Your task to perform on an android device: change keyboard looks Image 0: 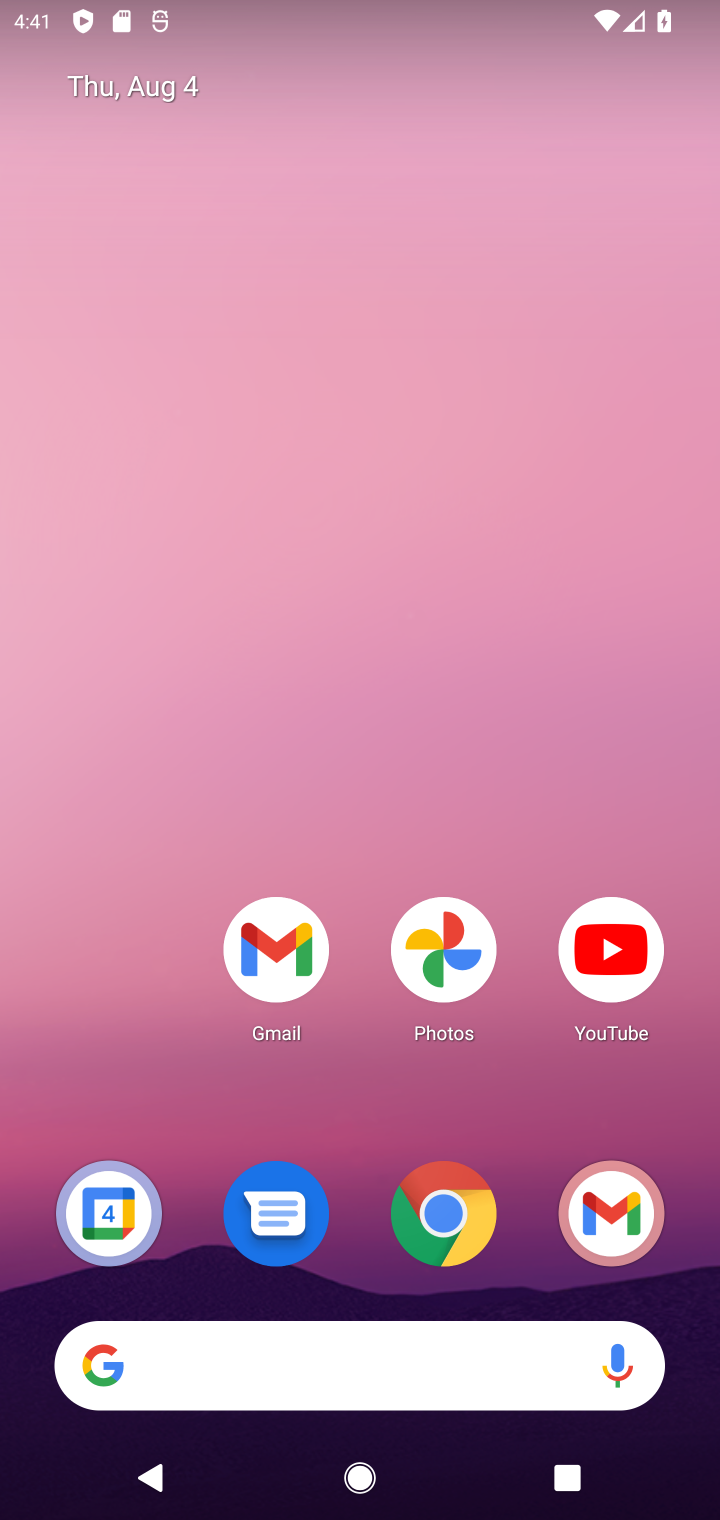
Step 0: press home button
Your task to perform on an android device: change keyboard looks Image 1: 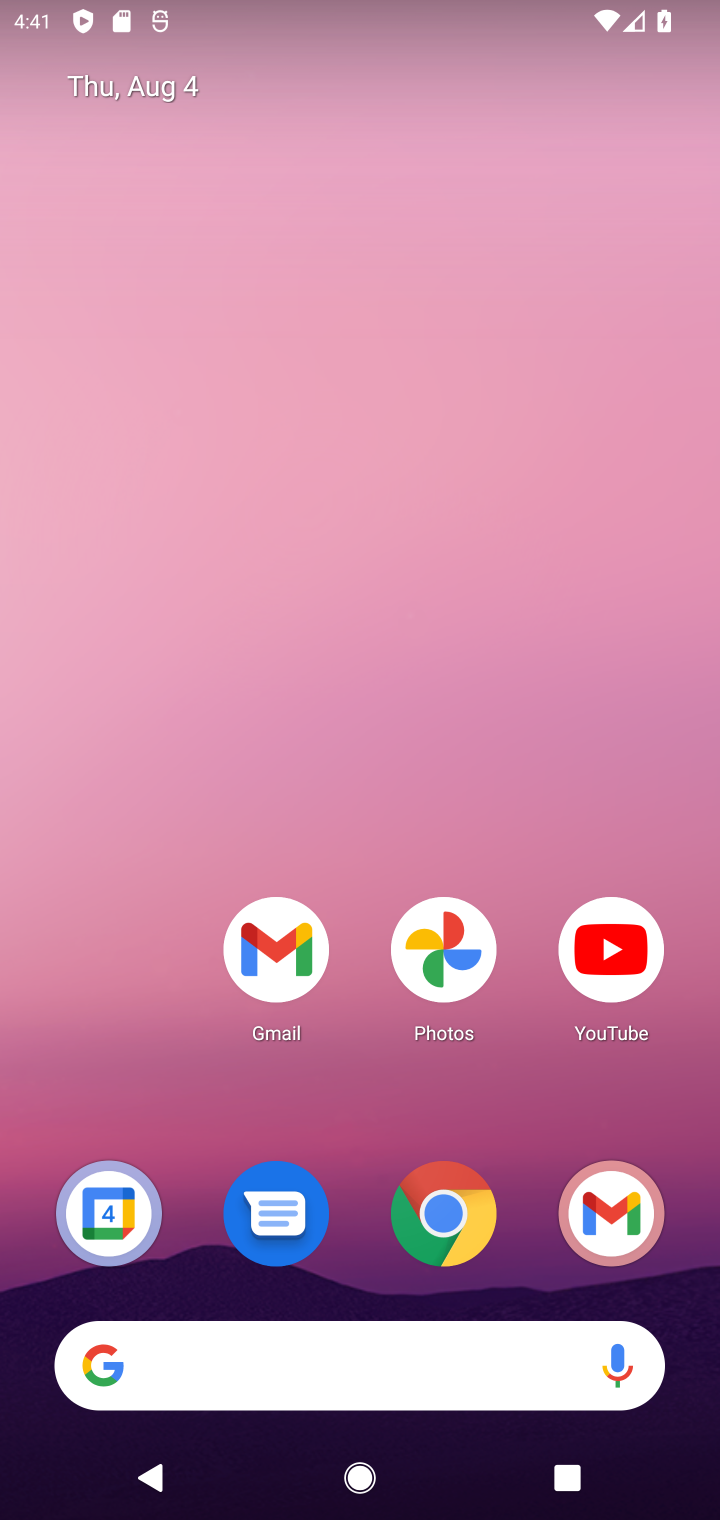
Step 1: drag from (92, 1067) to (174, 326)
Your task to perform on an android device: change keyboard looks Image 2: 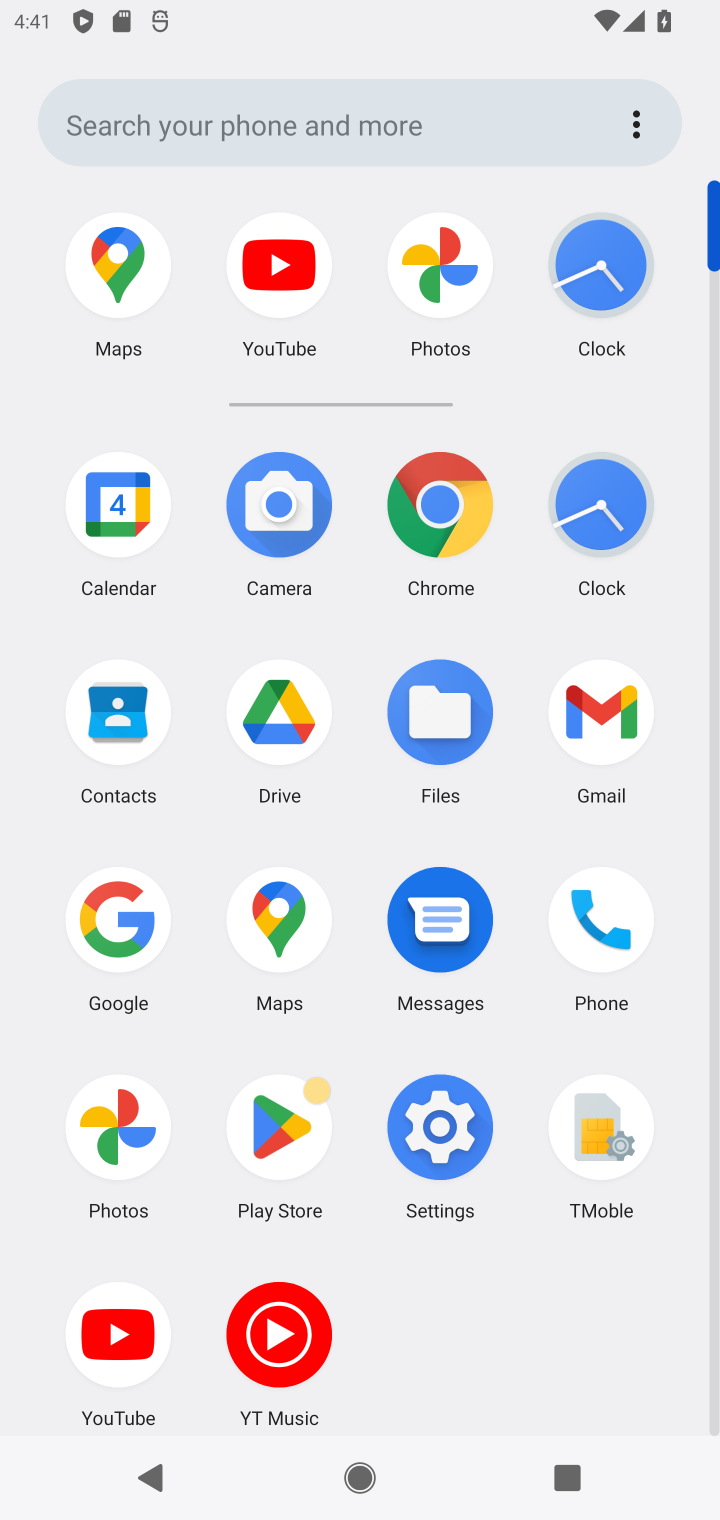
Step 2: click (436, 1132)
Your task to perform on an android device: change keyboard looks Image 3: 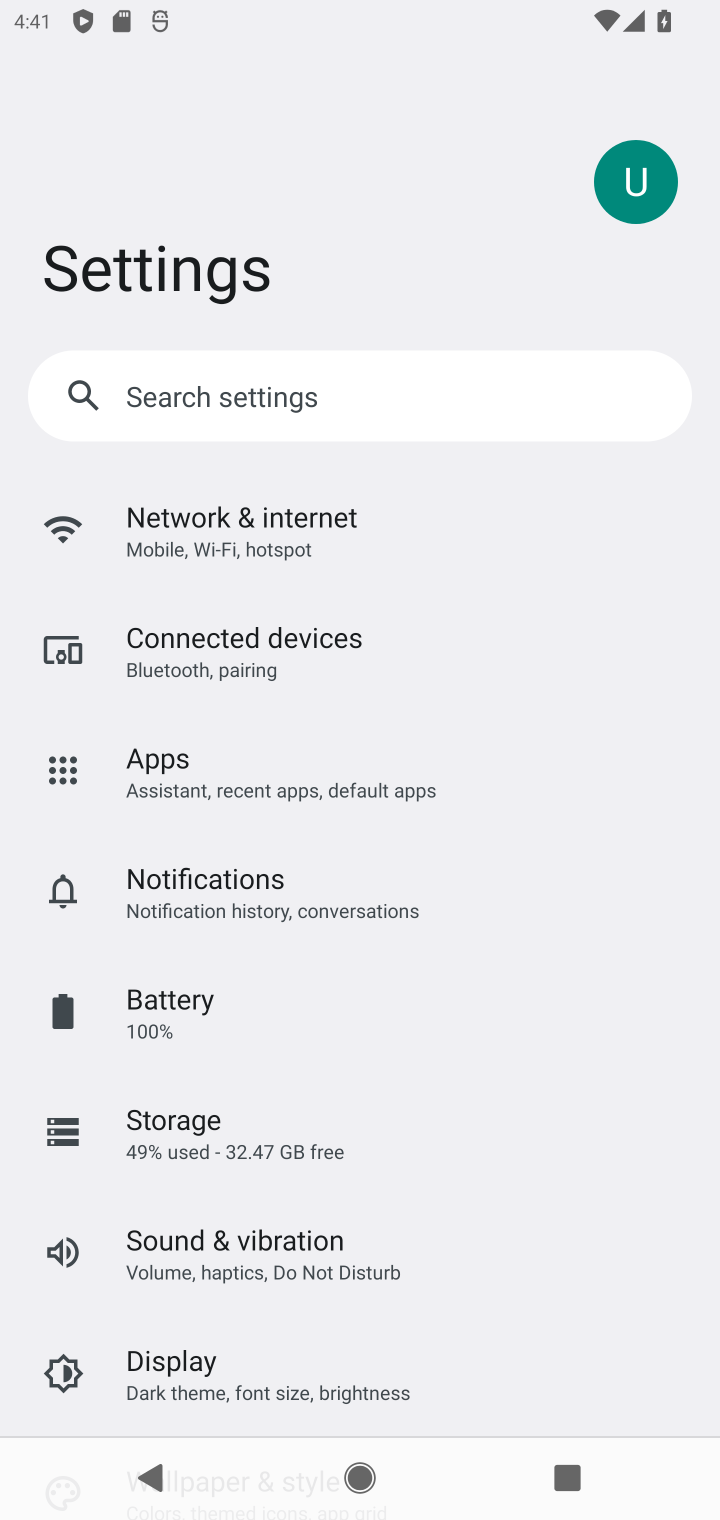
Step 3: drag from (563, 1106) to (604, 734)
Your task to perform on an android device: change keyboard looks Image 4: 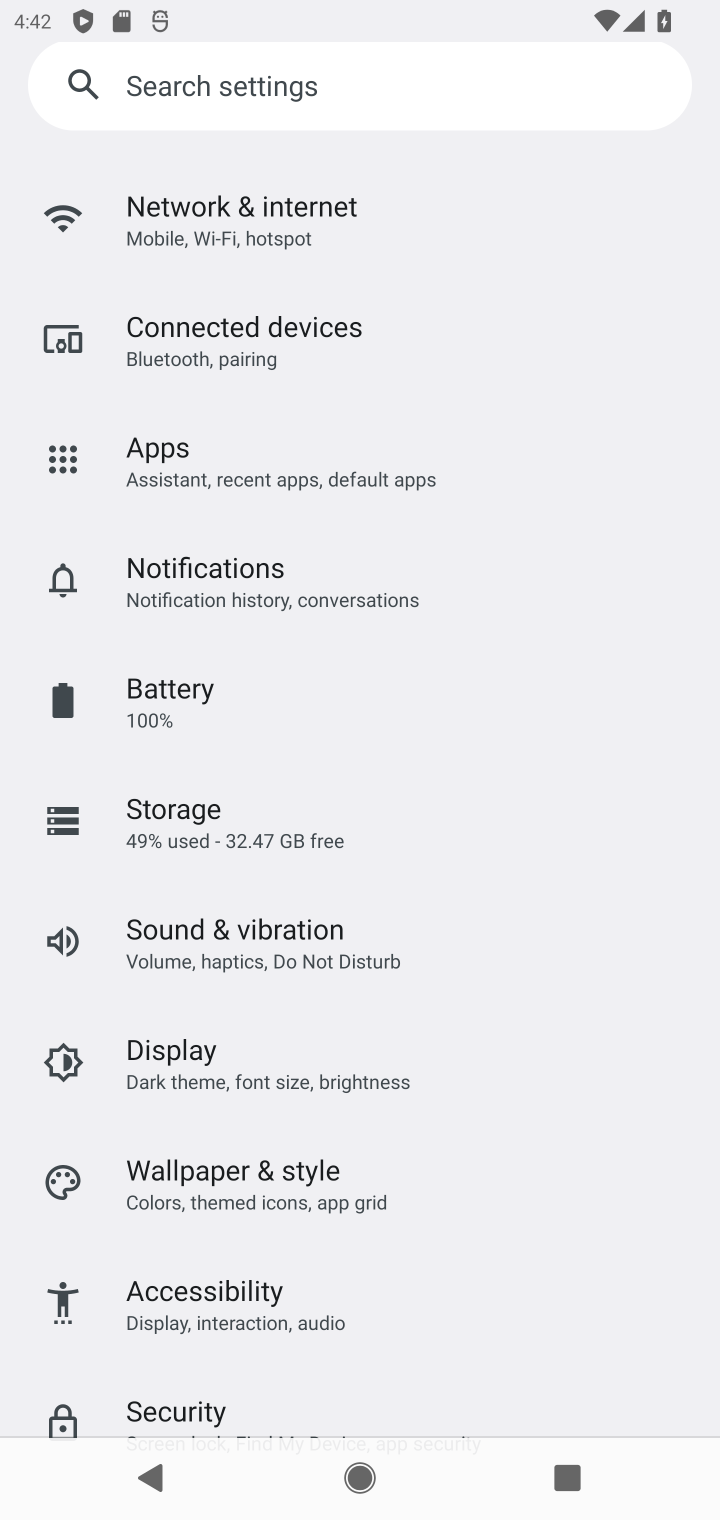
Step 4: drag from (582, 1108) to (614, 583)
Your task to perform on an android device: change keyboard looks Image 5: 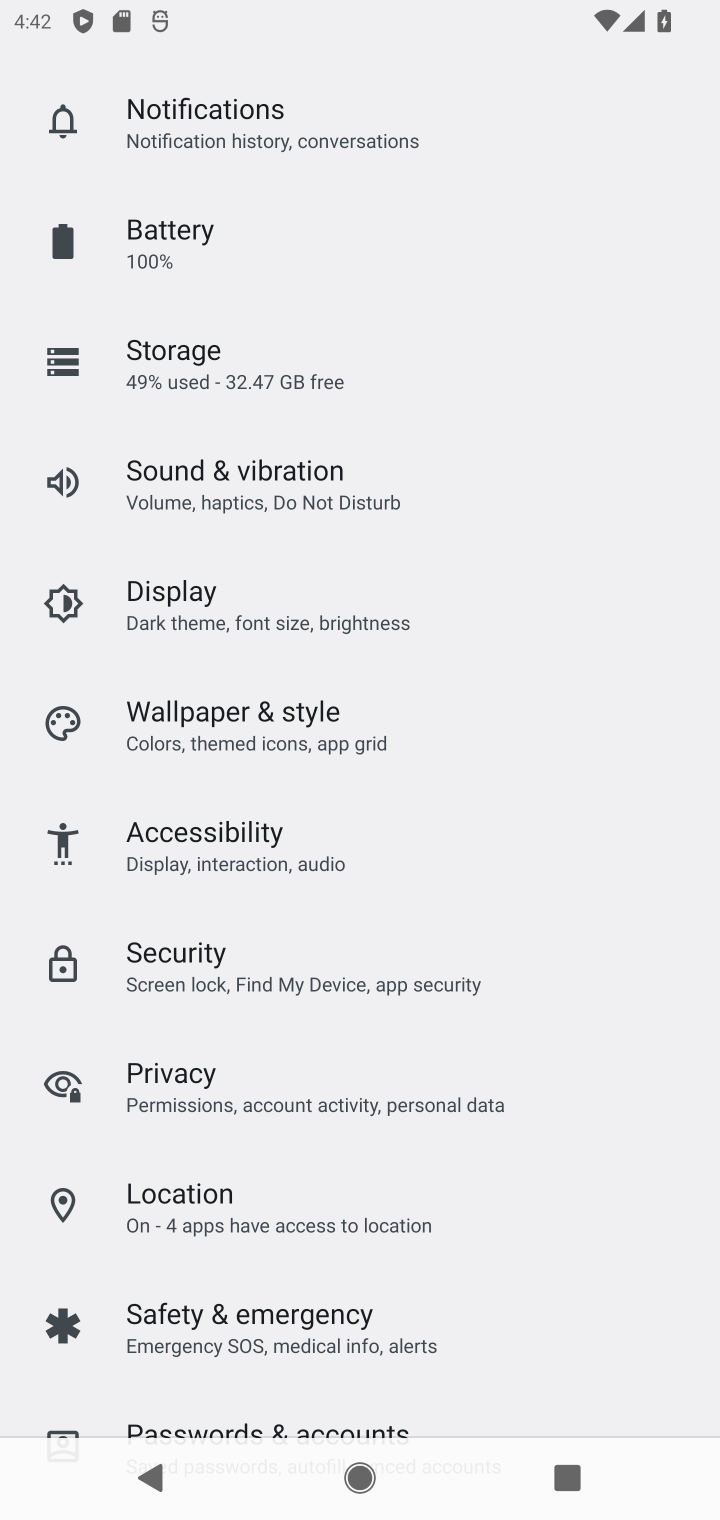
Step 5: drag from (571, 1228) to (595, 817)
Your task to perform on an android device: change keyboard looks Image 6: 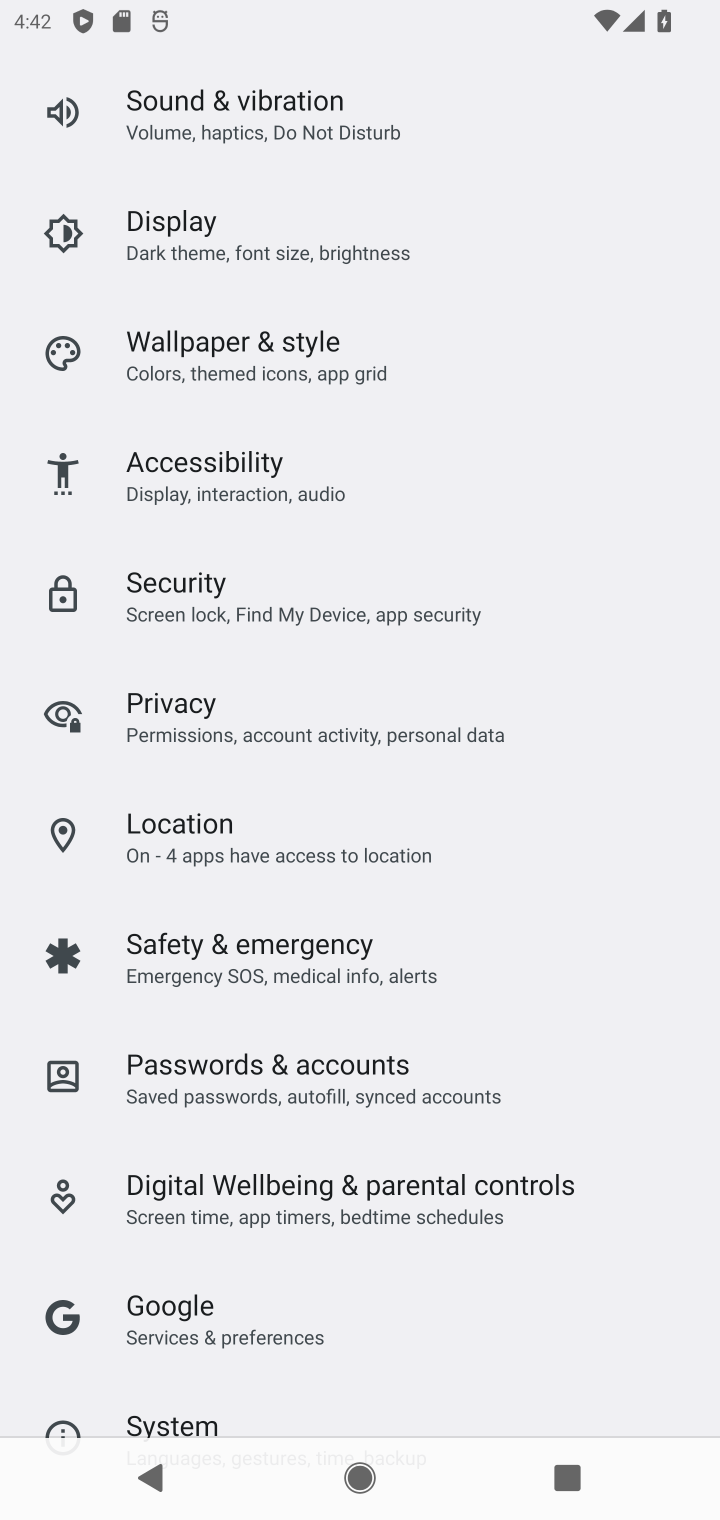
Step 6: drag from (549, 1291) to (586, 752)
Your task to perform on an android device: change keyboard looks Image 7: 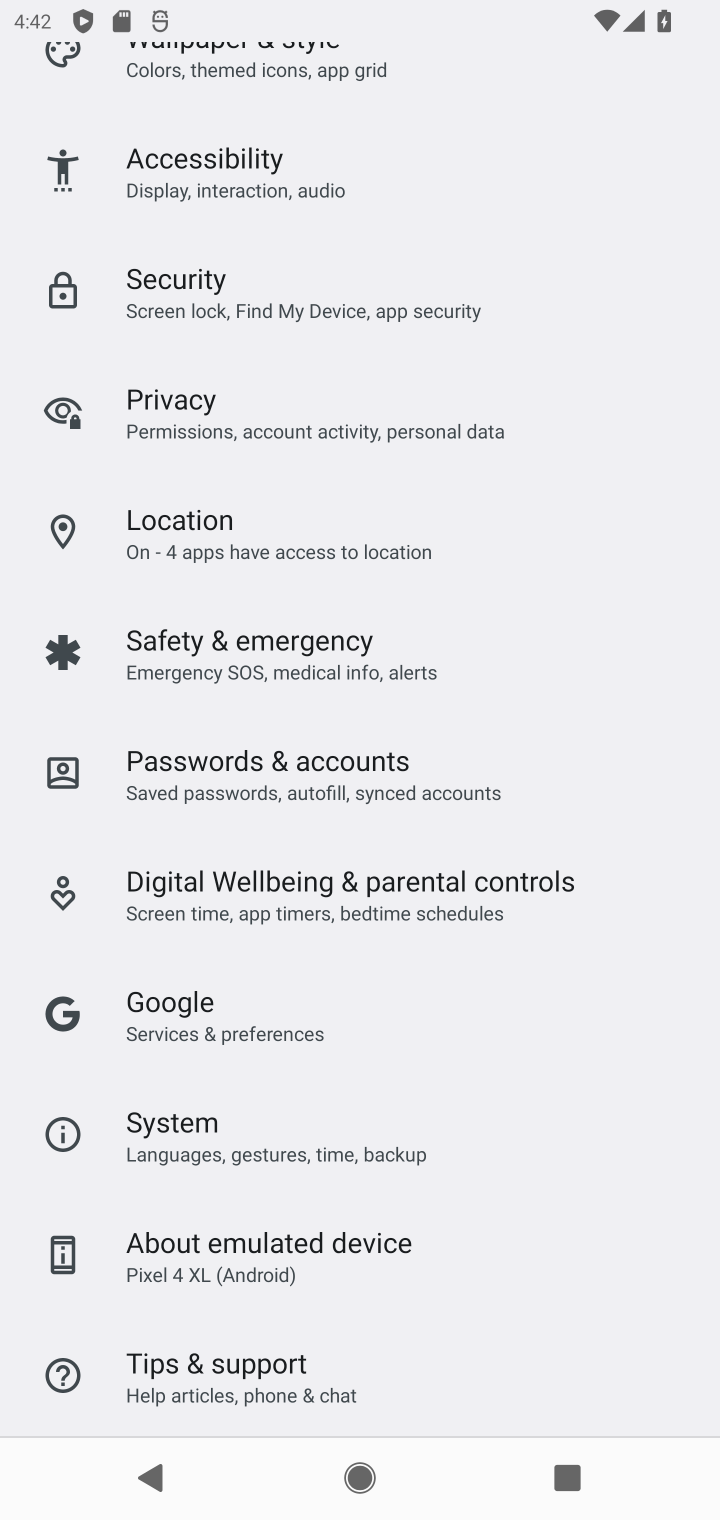
Step 7: click (431, 1146)
Your task to perform on an android device: change keyboard looks Image 8: 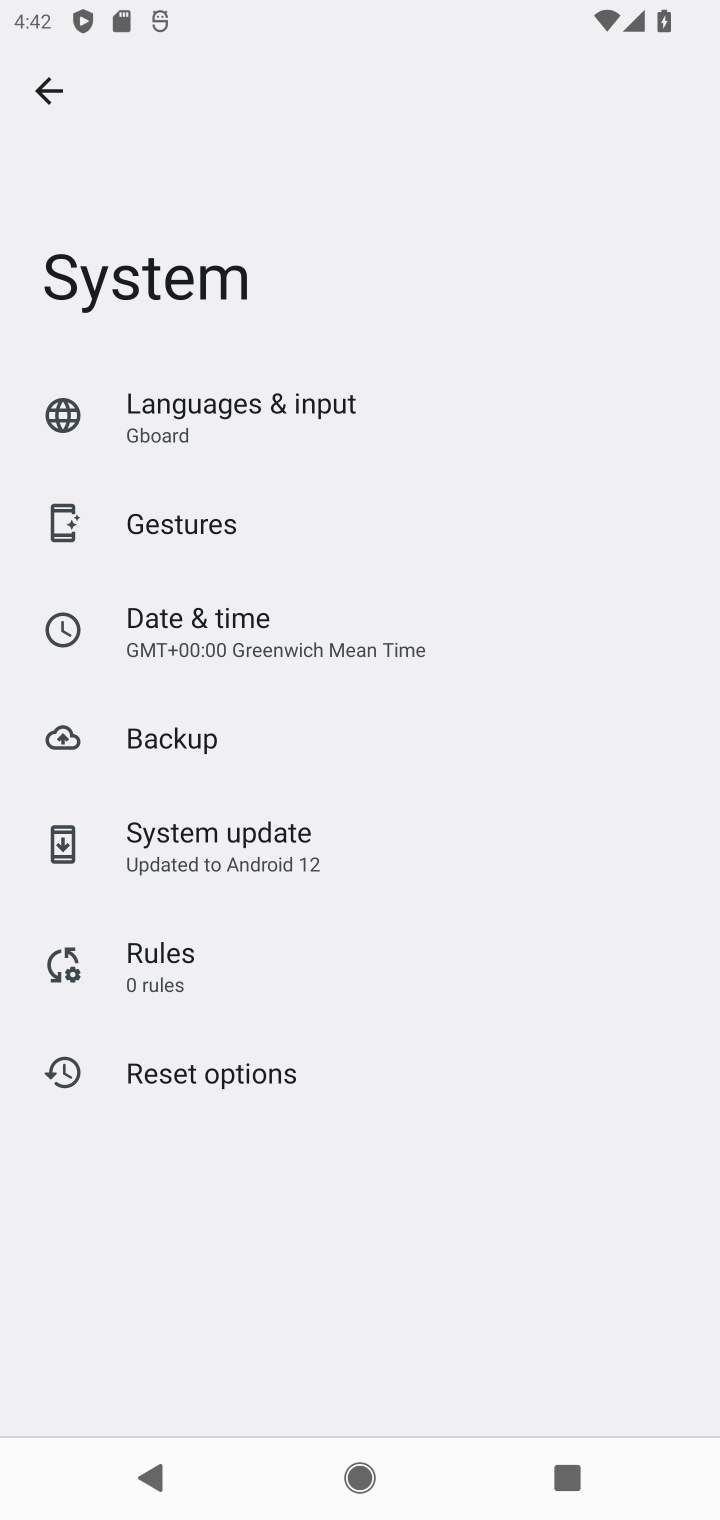
Step 8: task complete